Your task to perform on an android device: Search for pizza restaurants on Maps Image 0: 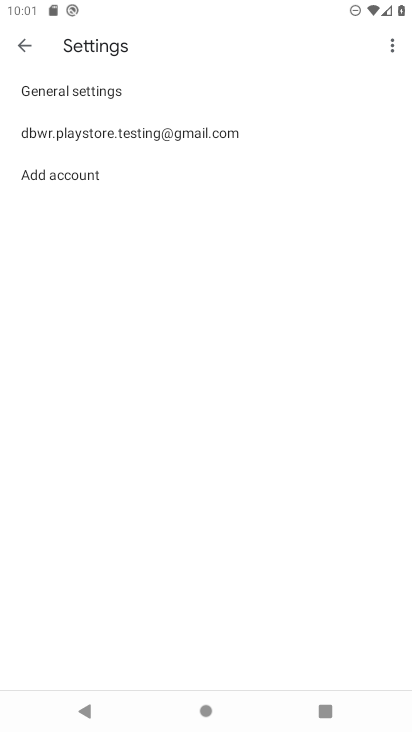
Step 0: press home button
Your task to perform on an android device: Search for pizza restaurants on Maps Image 1: 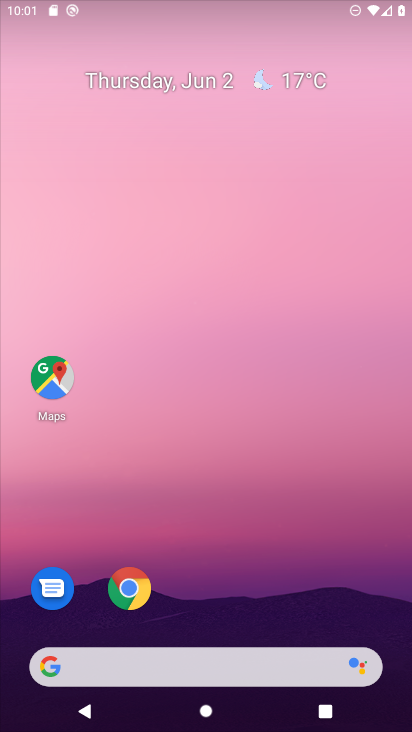
Step 1: drag from (276, 523) to (293, 301)
Your task to perform on an android device: Search for pizza restaurants on Maps Image 2: 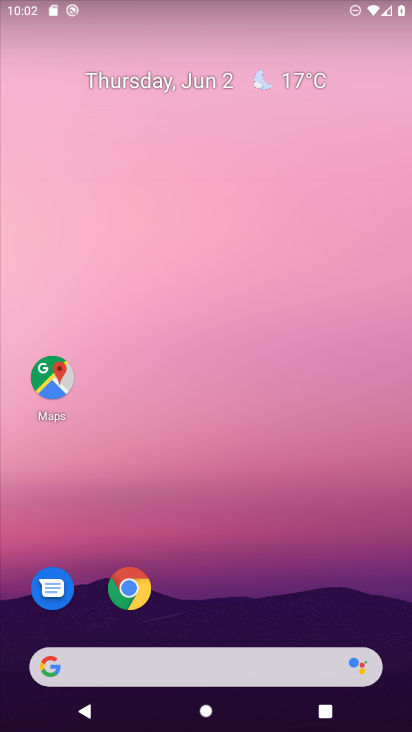
Step 2: drag from (216, 594) to (216, 401)
Your task to perform on an android device: Search for pizza restaurants on Maps Image 3: 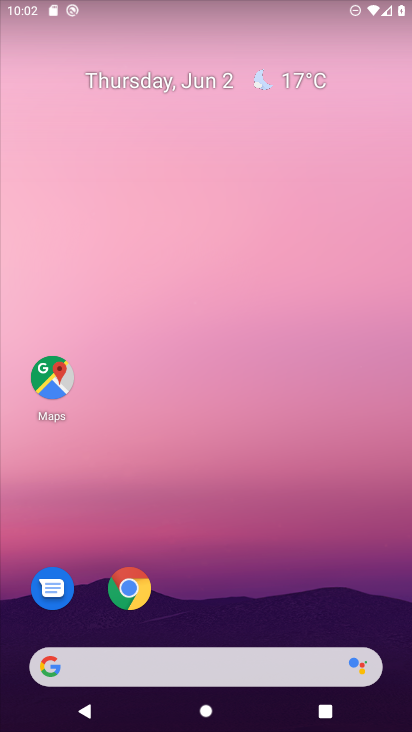
Step 3: click (57, 385)
Your task to perform on an android device: Search for pizza restaurants on Maps Image 4: 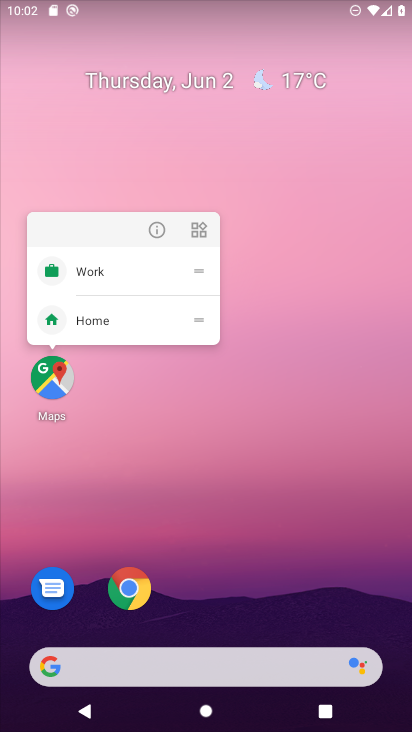
Step 4: click (48, 348)
Your task to perform on an android device: Search for pizza restaurants on Maps Image 5: 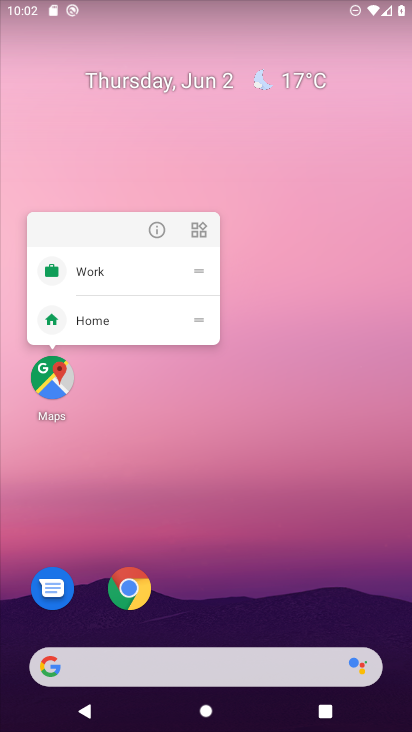
Step 5: click (53, 395)
Your task to perform on an android device: Search for pizza restaurants on Maps Image 6: 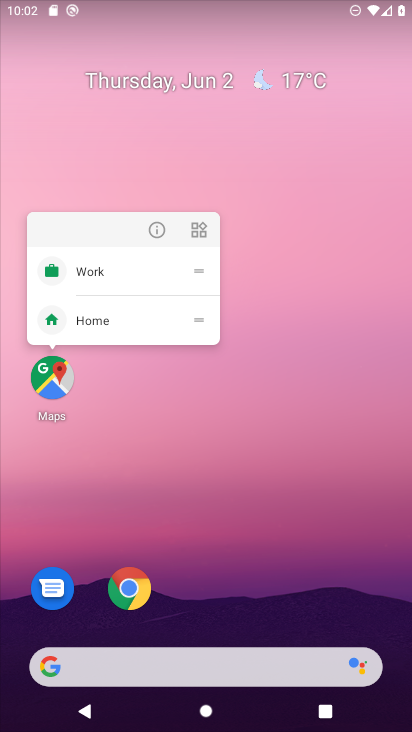
Step 6: click (52, 411)
Your task to perform on an android device: Search for pizza restaurants on Maps Image 7: 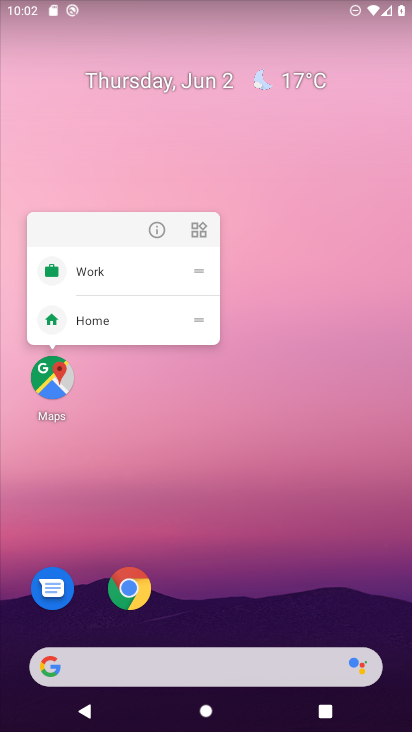
Step 7: click (62, 406)
Your task to perform on an android device: Search for pizza restaurants on Maps Image 8: 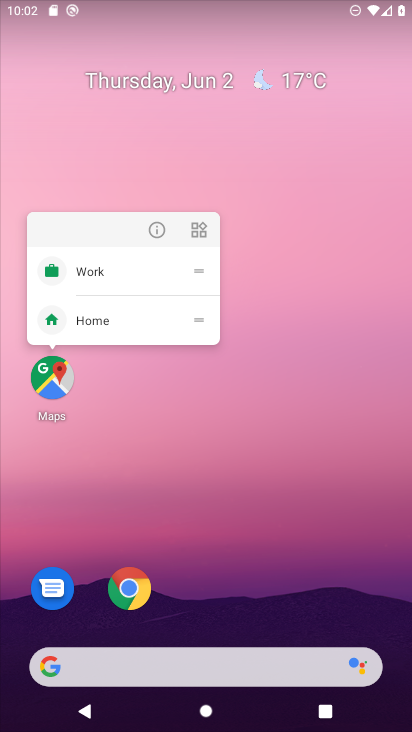
Step 8: click (64, 406)
Your task to perform on an android device: Search for pizza restaurants on Maps Image 9: 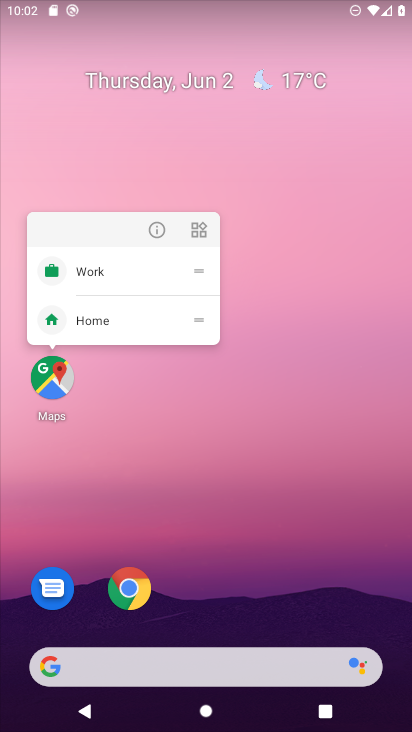
Step 9: click (66, 406)
Your task to perform on an android device: Search for pizza restaurants on Maps Image 10: 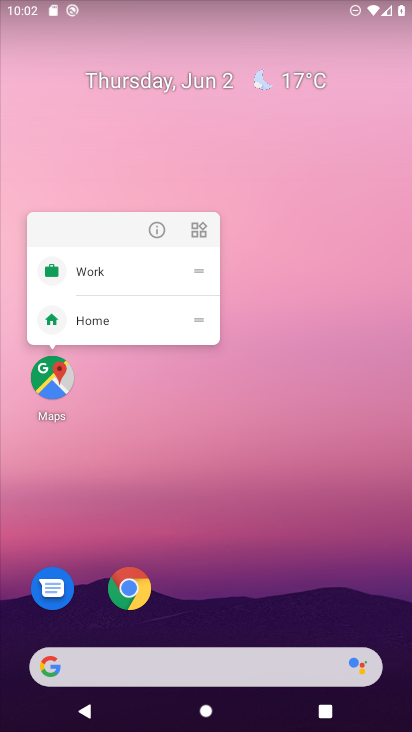
Step 10: click (66, 406)
Your task to perform on an android device: Search for pizza restaurants on Maps Image 11: 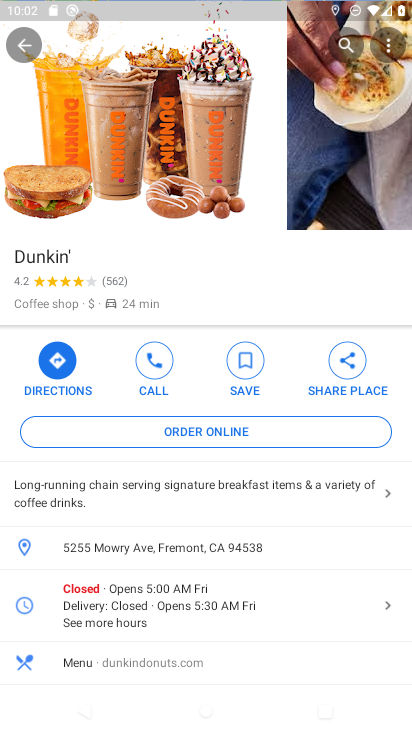
Step 11: click (35, 54)
Your task to perform on an android device: Search for pizza restaurants on Maps Image 12: 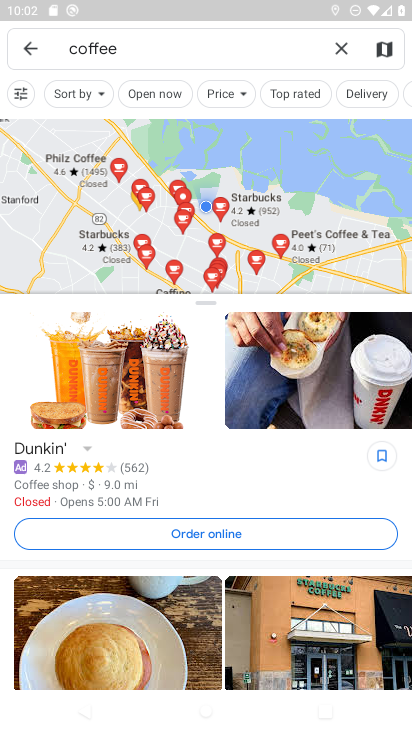
Step 12: click (340, 58)
Your task to perform on an android device: Search for pizza restaurants on Maps Image 13: 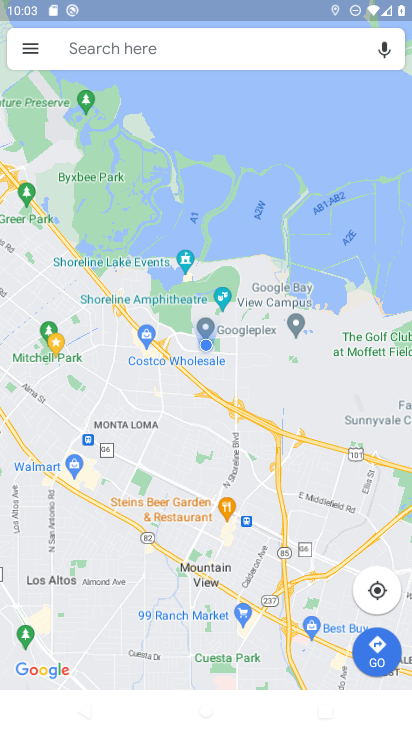
Step 13: click (267, 58)
Your task to perform on an android device: Search for pizza restaurants on Maps Image 14: 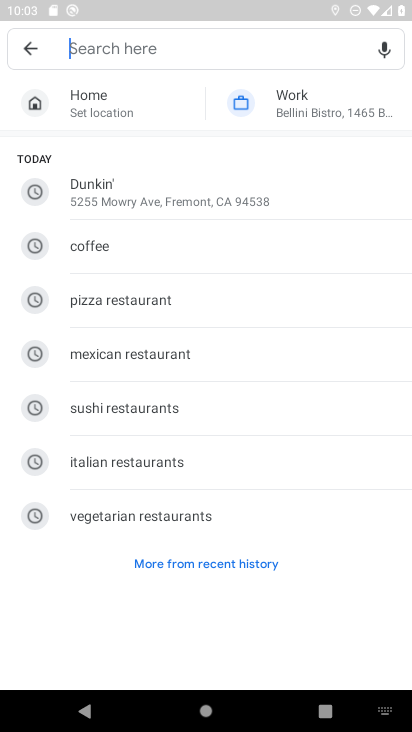
Step 14: click (168, 318)
Your task to perform on an android device: Search for pizza restaurants on Maps Image 15: 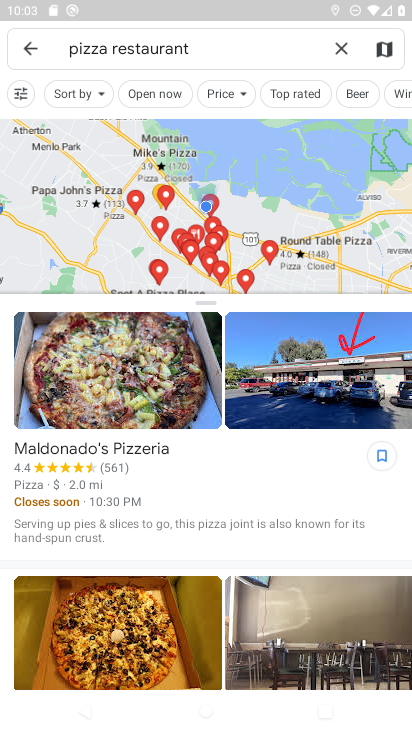
Step 15: task complete